Your task to perform on an android device: turn off location history Image 0: 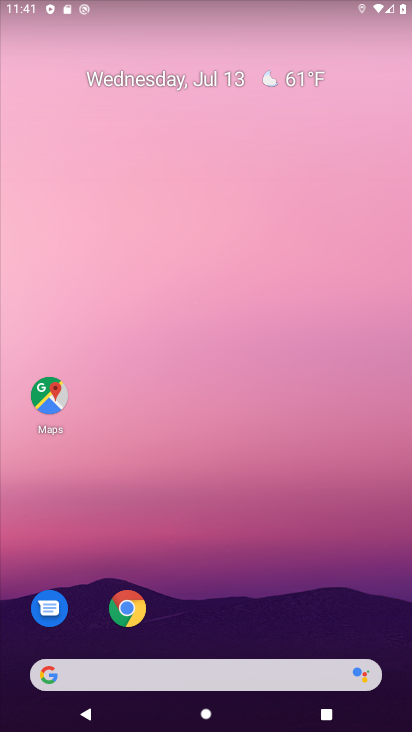
Step 0: click (258, 106)
Your task to perform on an android device: turn off location history Image 1: 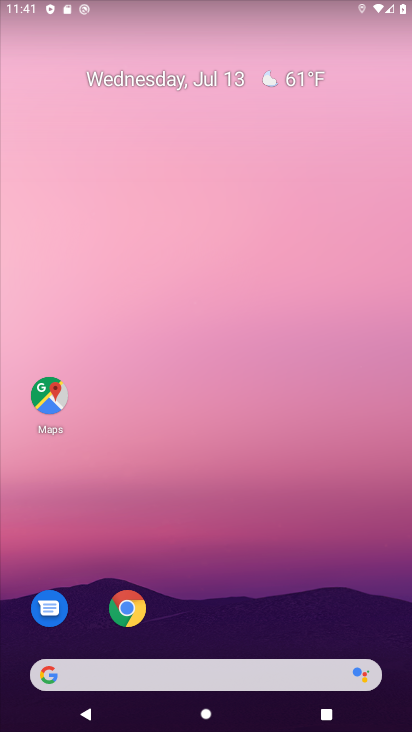
Step 1: drag from (180, 617) to (208, 93)
Your task to perform on an android device: turn off location history Image 2: 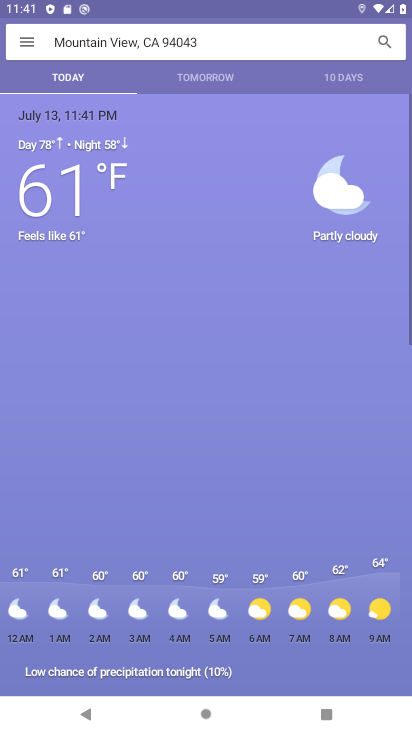
Step 2: press home button
Your task to perform on an android device: turn off location history Image 3: 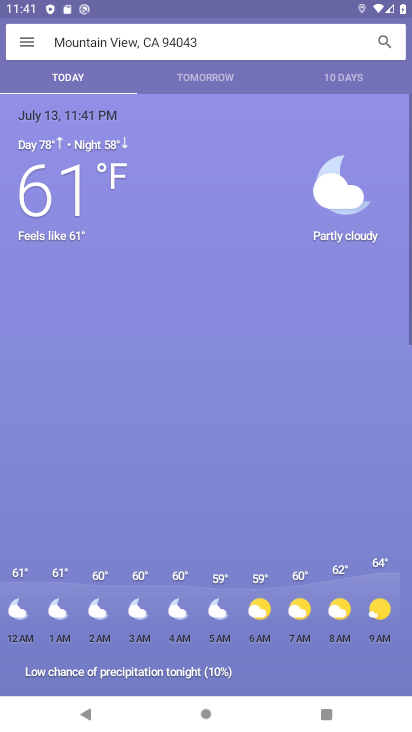
Step 3: press home button
Your task to perform on an android device: turn off location history Image 4: 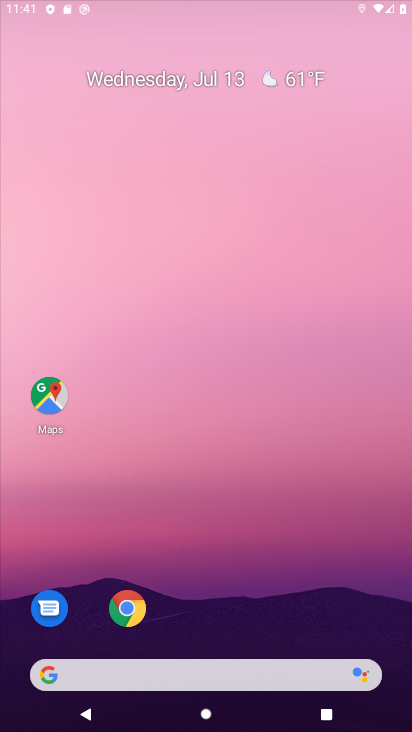
Step 4: drag from (198, 558) to (230, 127)
Your task to perform on an android device: turn off location history Image 5: 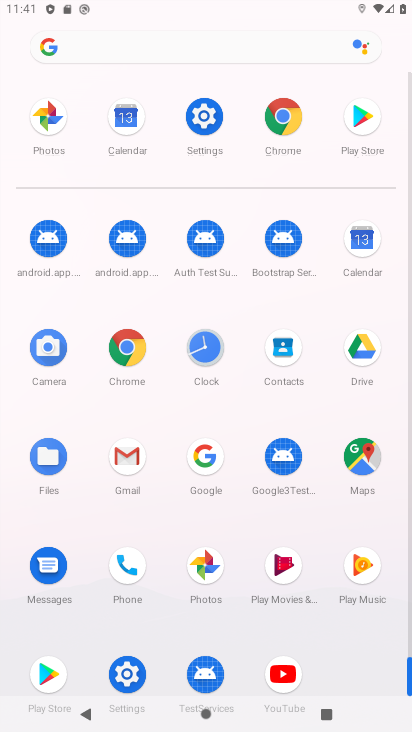
Step 5: drag from (162, 613) to (187, 219)
Your task to perform on an android device: turn off location history Image 6: 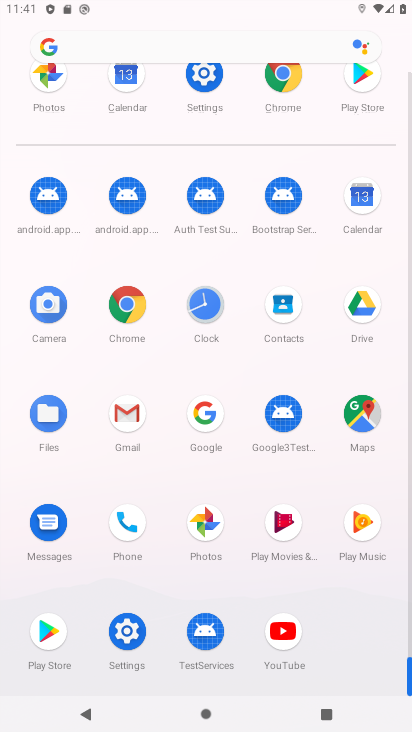
Step 6: click (202, 76)
Your task to perform on an android device: turn off location history Image 7: 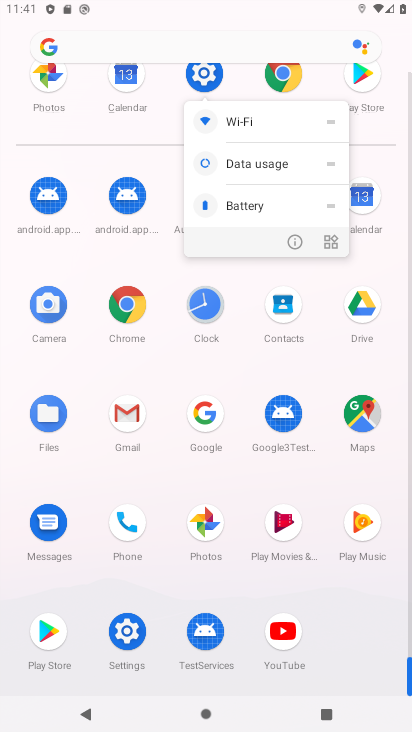
Step 7: click (304, 235)
Your task to perform on an android device: turn off location history Image 8: 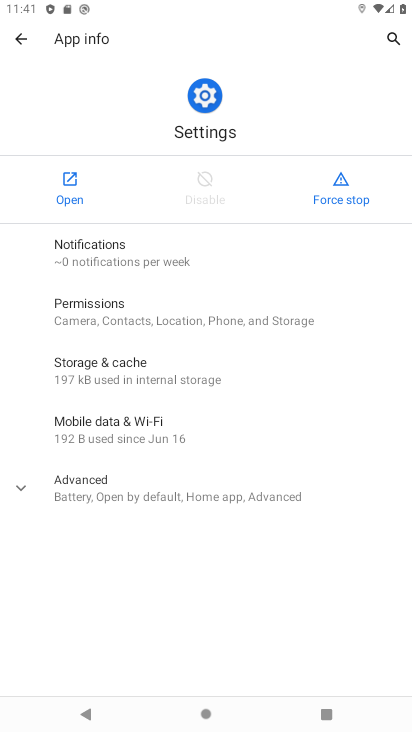
Step 8: click (66, 168)
Your task to perform on an android device: turn off location history Image 9: 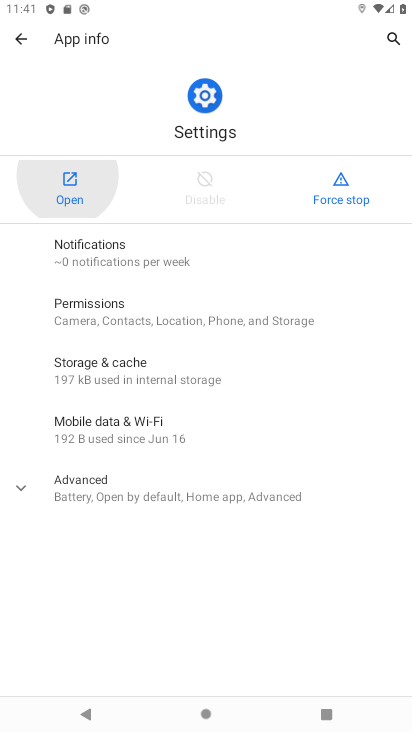
Step 9: click (66, 168)
Your task to perform on an android device: turn off location history Image 10: 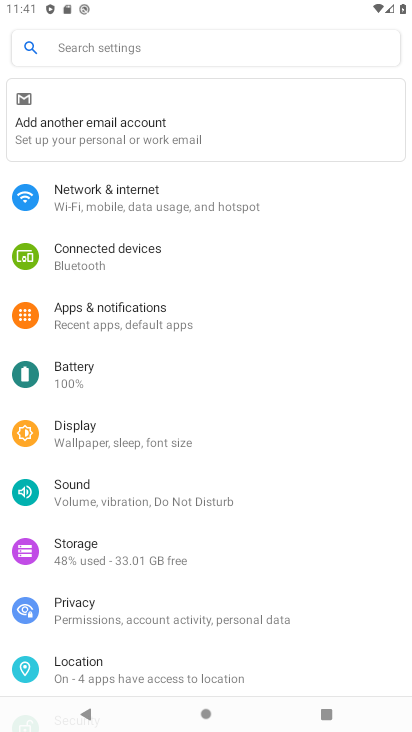
Step 10: drag from (138, 600) to (189, 286)
Your task to perform on an android device: turn off location history Image 11: 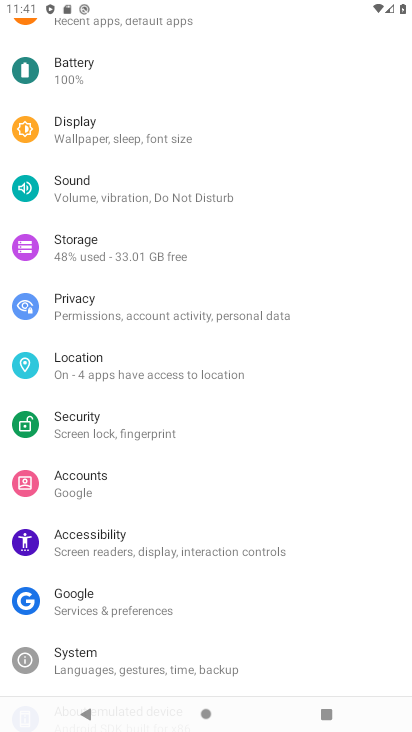
Step 11: click (123, 573)
Your task to perform on an android device: turn off location history Image 12: 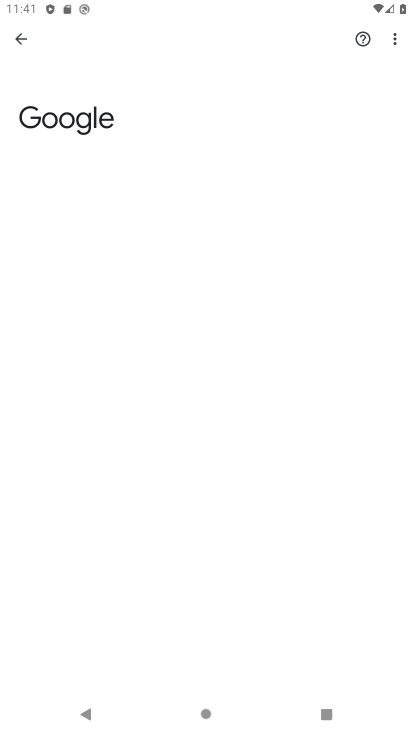
Step 12: press back button
Your task to perform on an android device: turn off location history Image 13: 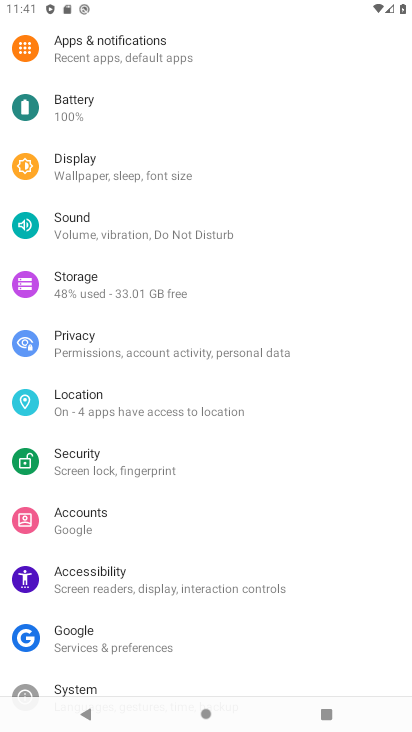
Step 13: drag from (144, 649) to (228, 297)
Your task to perform on an android device: turn off location history Image 14: 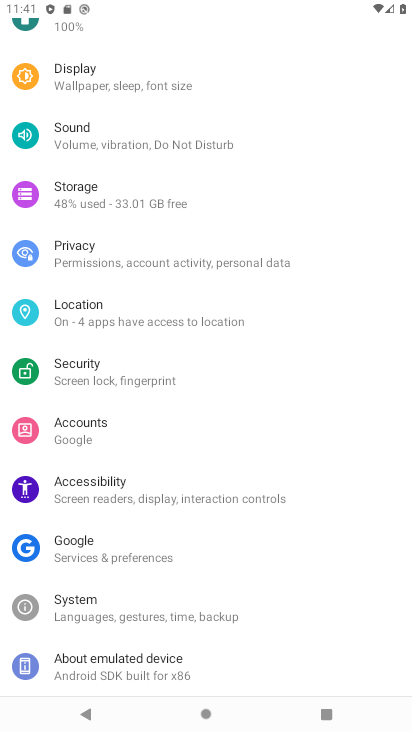
Step 14: click (122, 323)
Your task to perform on an android device: turn off location history Image 15: 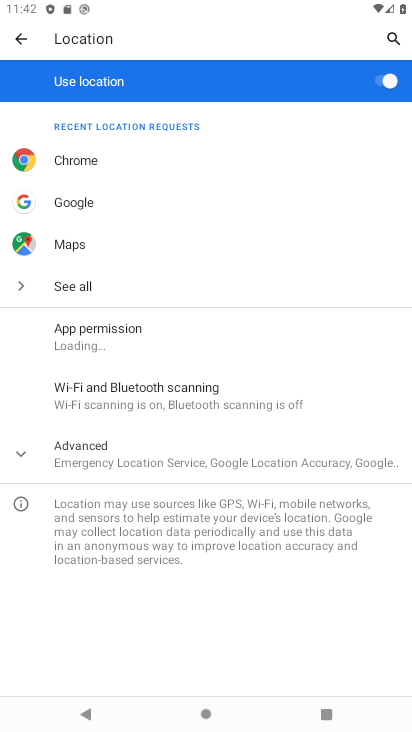
Step 15: click (99, 461)
Your task to perform on an android device: turn off location history Image 16: 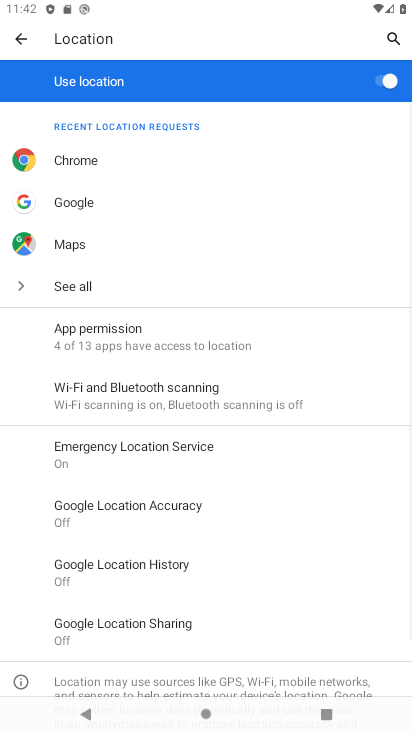
Step 16: click (168, 560)
Your task to perform on an android device: turn off location history Image 17: 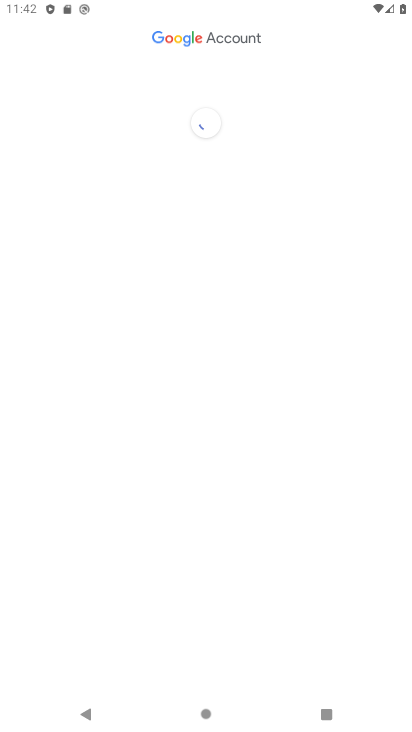
Step 17: drag from (197, 547) to (215, 186)
Your task to perform on an android device: turn off location history Image 18: 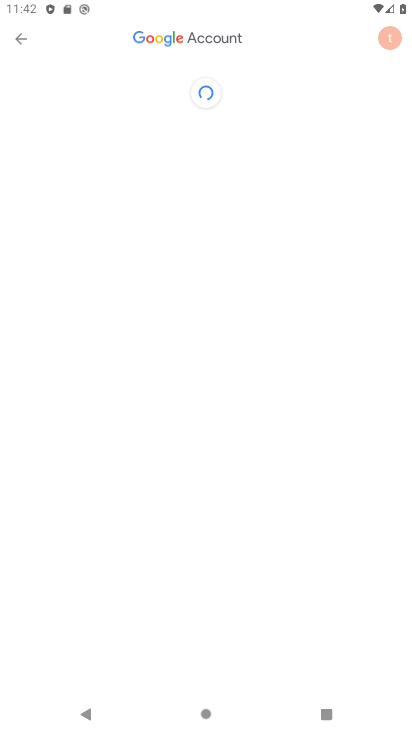
Step 18: drag from (165, 509) to (158, 189)
Your task to perform on an android device: turn off location history Image 19: 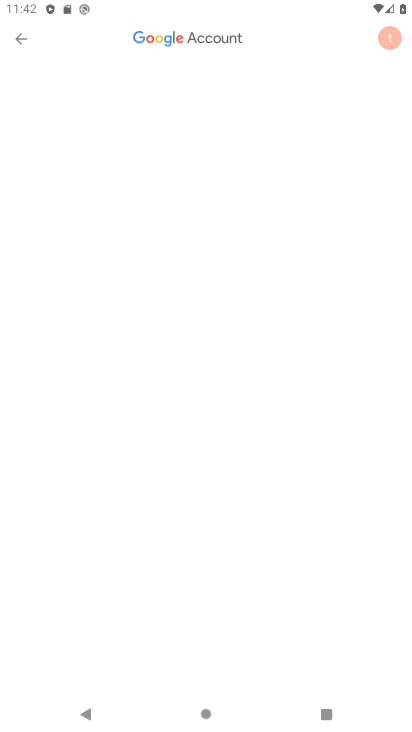
Step 19: drag from (127, 544) to (134, 276)
Your task to perform on an android device: turn off location history Image 20: 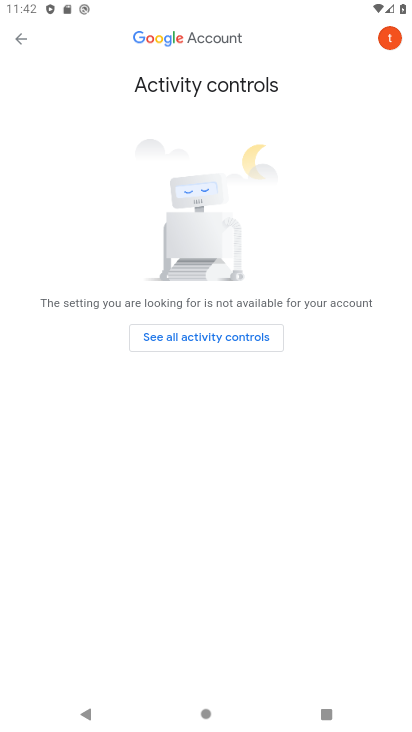
Step 20: drag from (227, 528) to (191, 191)
Your task to perform on an android device: turn off location history Image 21: 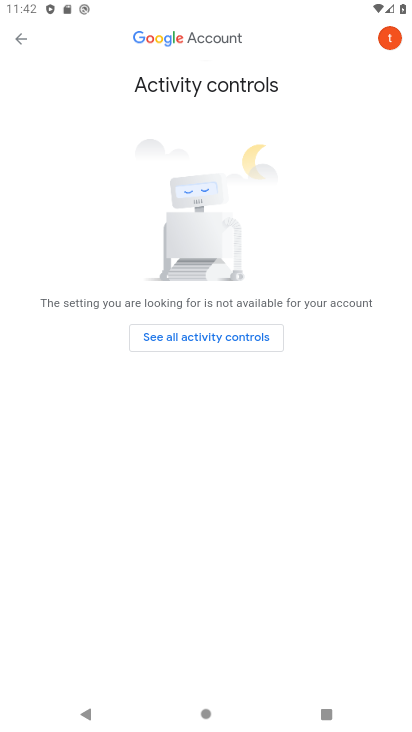
Step 21: click (207, 353)
Your task to perform on an android device: turn off location history Image 22: 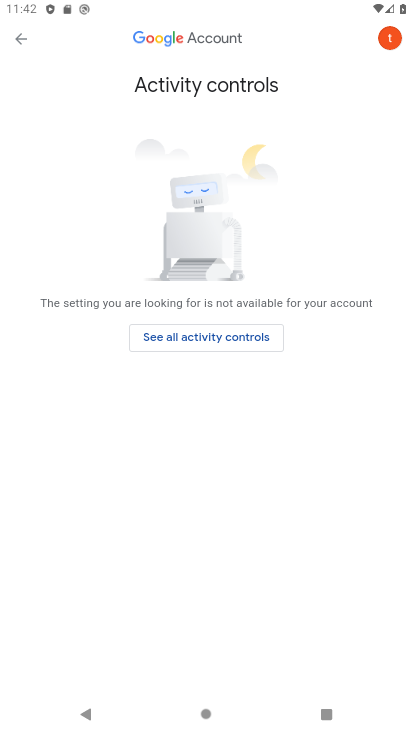
Step 22: click (203, 344)
Your task to perform on an android device: turn off location history Image 23: 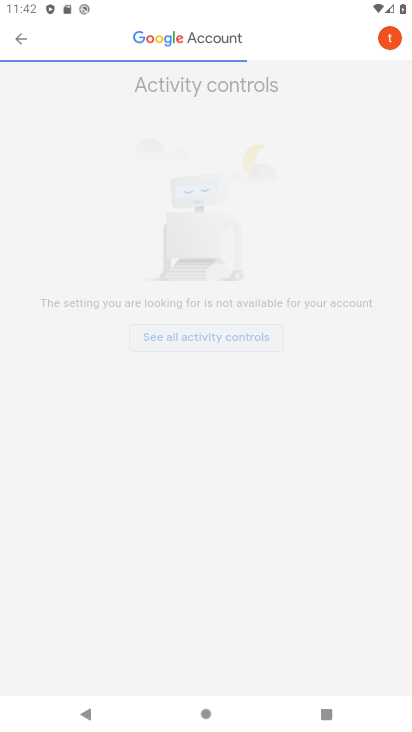
Step 23: drag from (231, 441) to (228, 48)
Your task to perform on an android device: turn off location history Image 24: 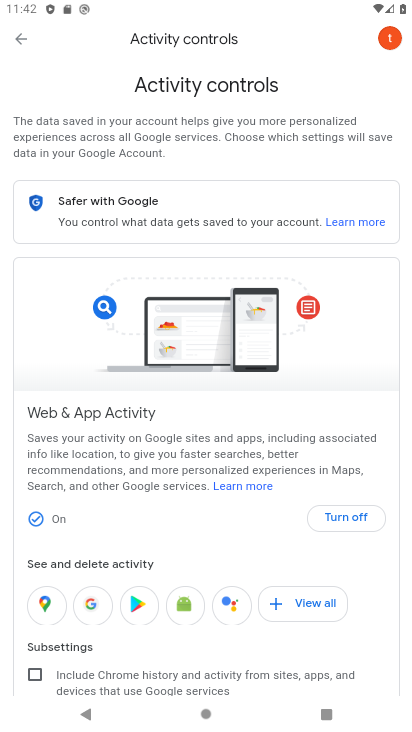
Step 24: drag from (187, 396) to (217, 151)
Your task to perform on an android device: turn off location history Image 25: 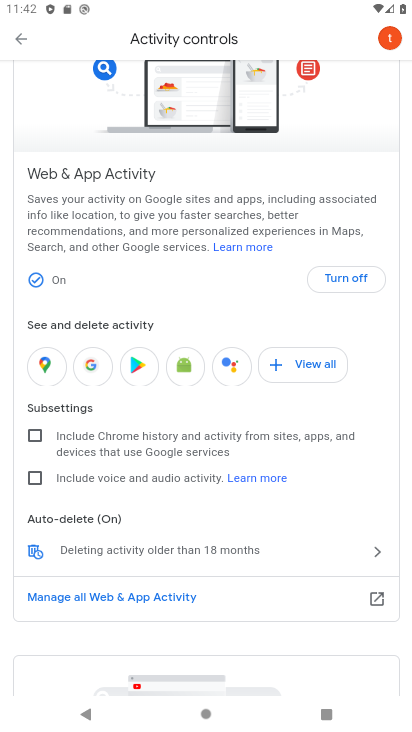
Step 25: click (336, 283)
Your task to perform on an android device: turn off location history Image 26: 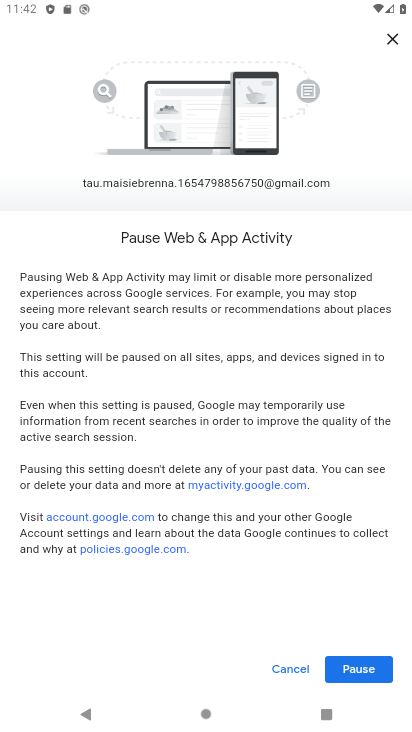
Step 26: drag from (258, 469) to (258, 196)
Your task to perform on an android device: turn off location history Image 27: 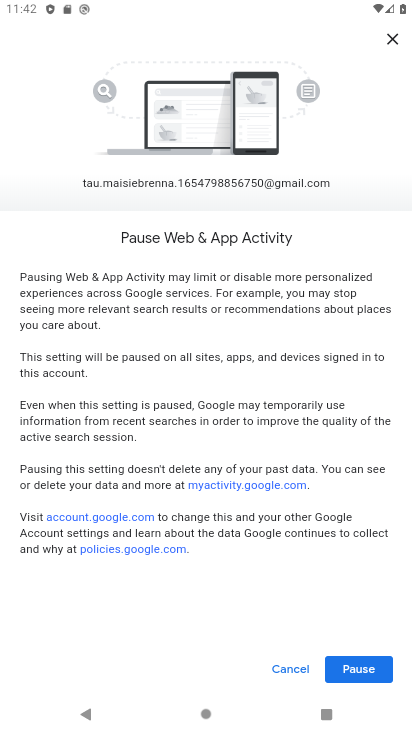
Step 27: click (361, 687)
Your task to perform on an android device: turn off location history Image 28: 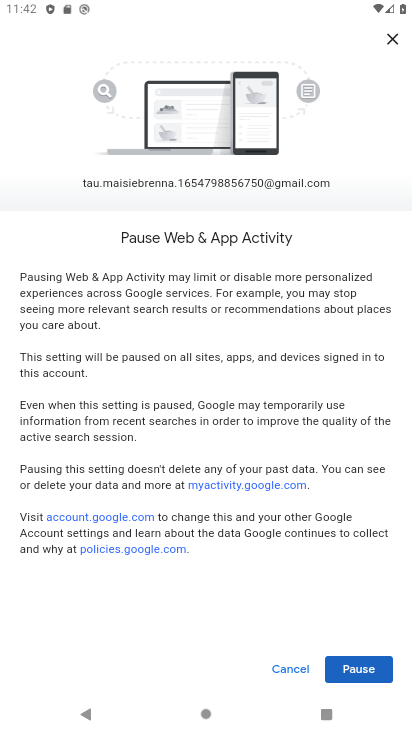
Step 28: click (360, 675)
Your task to perform on an android device: turn off location history Image 29: 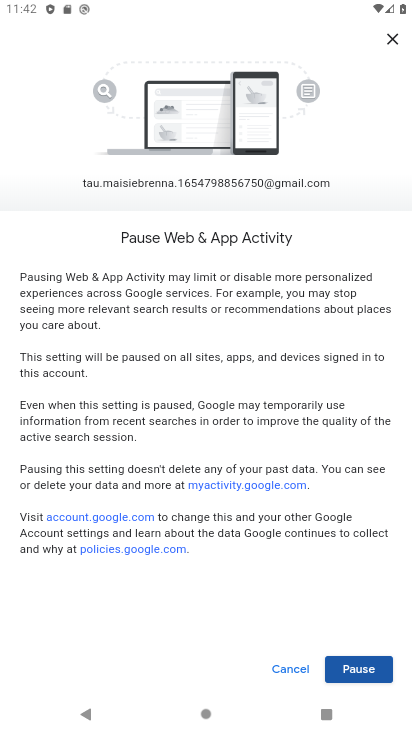
Step 29: drag from (267, 346) to (259, 287)
Your task to perform on an android device: turn off location history Image 30: 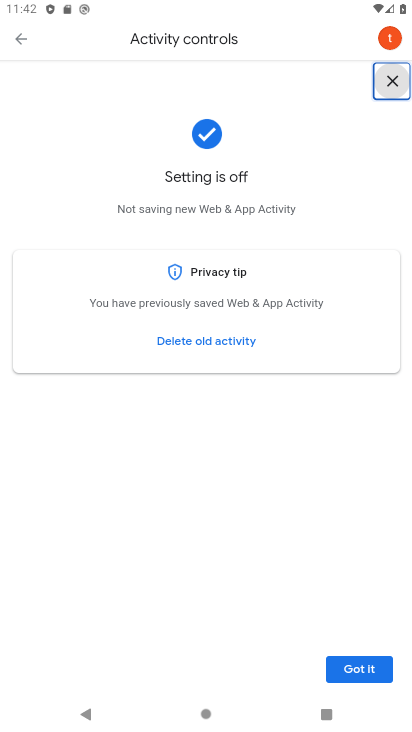
Step 30: drag from (204, 581) to (182, 239)
Your task to perform on an android device: turn off location history Image 31: 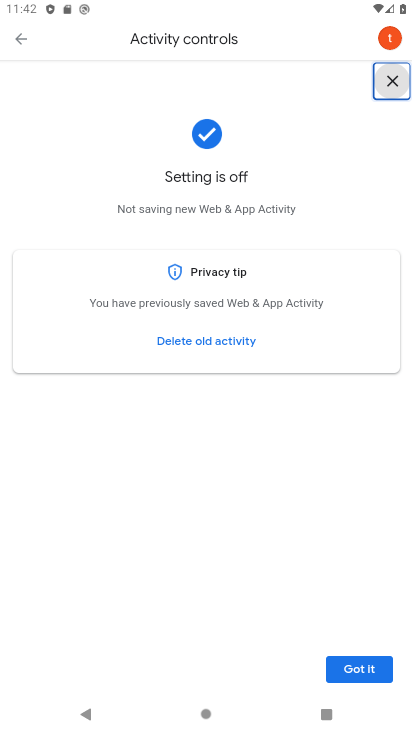
Step 31: click (358, 670)
Your task to perform on an android device: turn off location history Image 32: 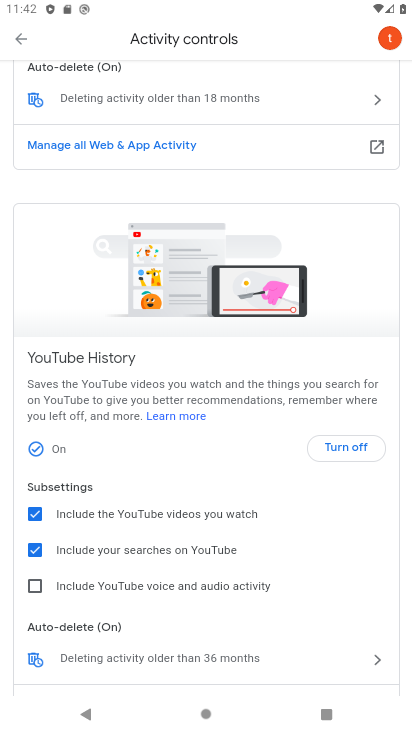
Step 32: task complete